Your task to perform on an android device: toggle location history Image 0: 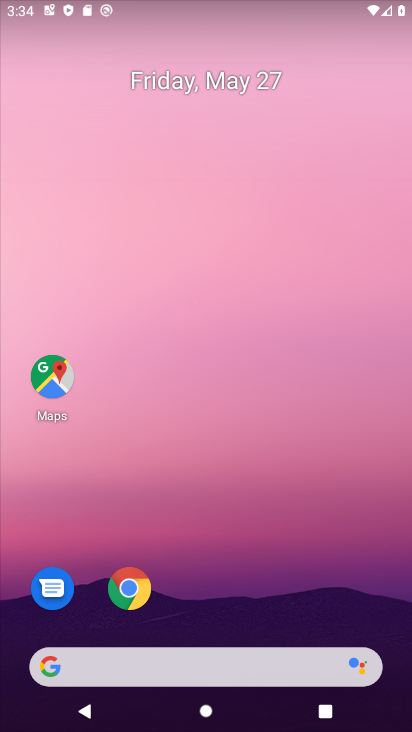
Step 0: drag from (215, 638) to (154, 134)
Your task to perform on an android device: toggle location history Image 1: 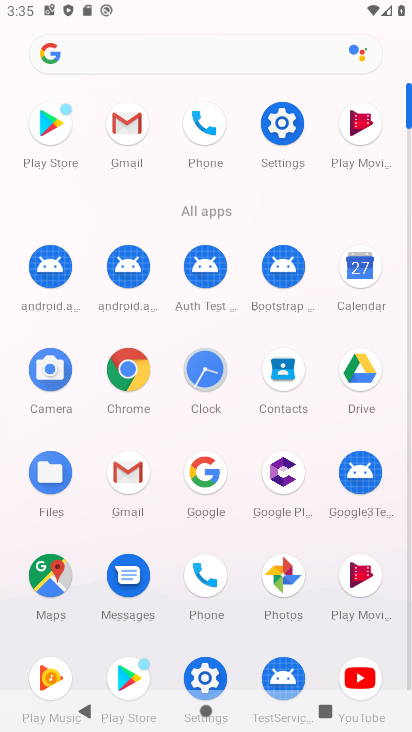
Step 1: click (200, 668)
Your task to perform on an android device: toggle location history Image 2: 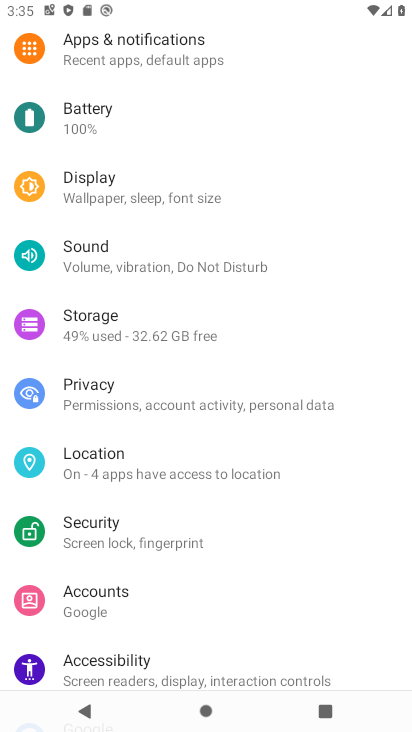
Step 2: click (102, 450)
Your task to perform on an android device: toggle location history Image 3: 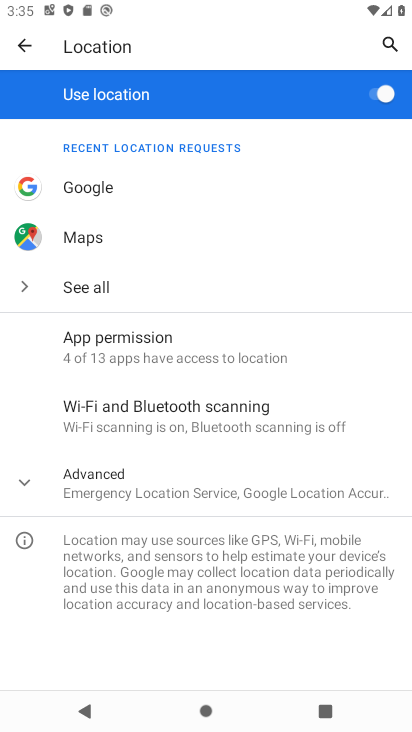
Step 3: click (95, 462)
Your task to perform on an android device: toggle location history Image 4: 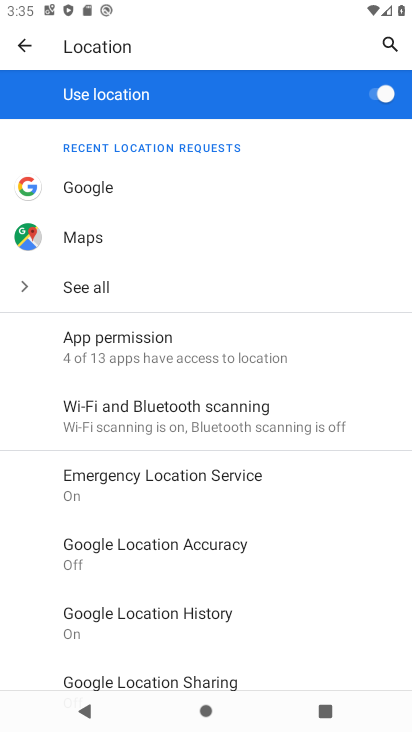
Step 4: click (202, 595)
Your task to perform on an android device: toggle location history Image 5: 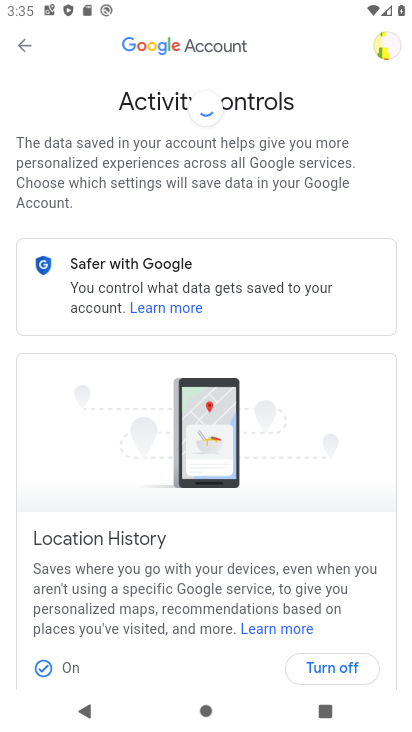
Step 5: click (319, 664)
Your task to perform on an android device: toggle location history Image 6: 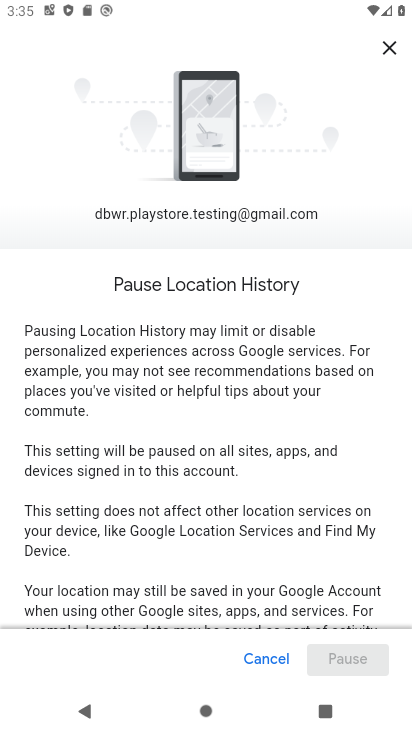
Step 6: drag from (301, 594) to (225, 65)
Your task to perform on an android device: toggle location history Image 7: 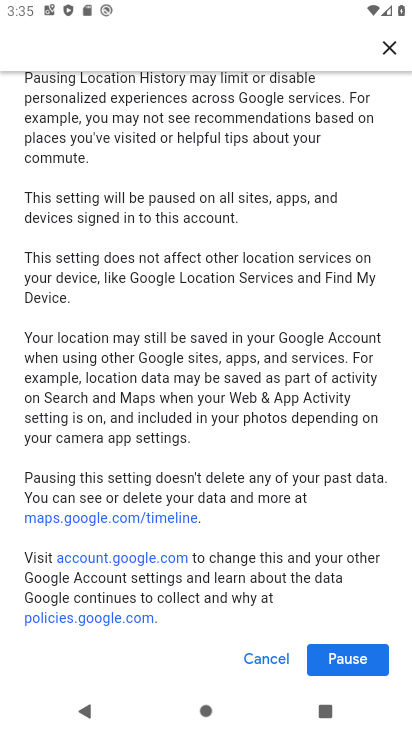
Step 7: click (336, 643)
Your task to perform on an android device: toggle location history Image 8: 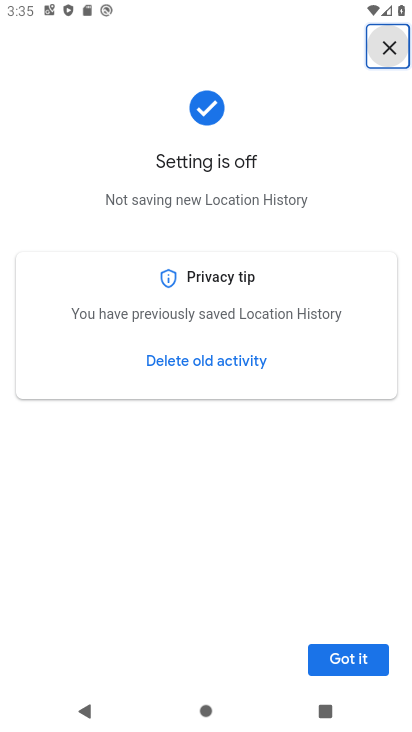
Step 8: click (337, 665)
Your task to perform on an android device: toggle location history Image 9: 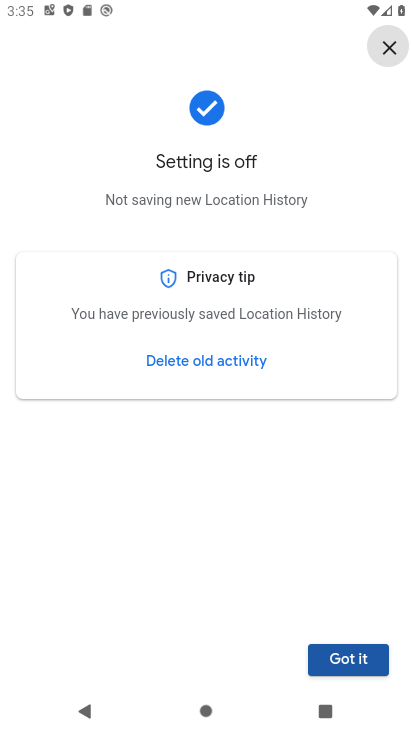
Step 9: task complete